Your task to perform on an android device: change notification settings in the gmail app Image 0: 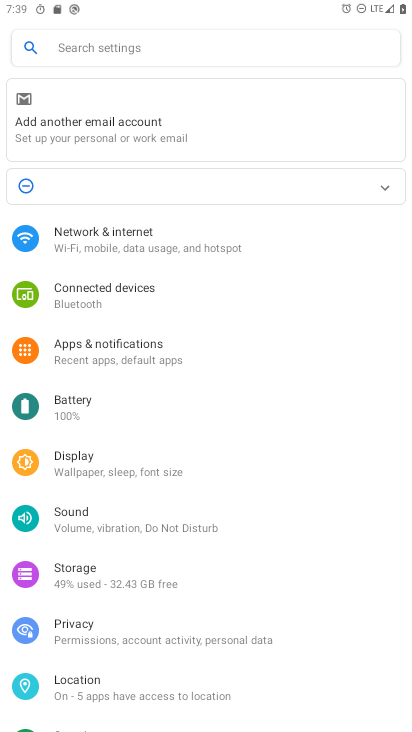
Step 0: press home button
Your task to perform on an android device: change notification settings in the gmail app Image 1: 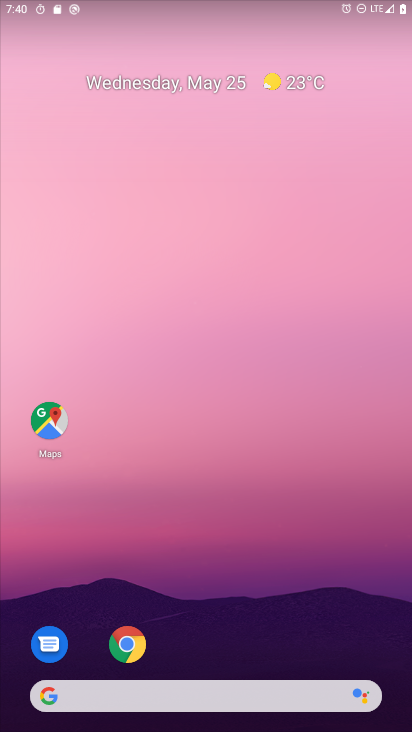
Step 1: drag from (301, 627) to (220, 0)
Your task to perform on an android device: change notification settings in the gmail app Image 2: 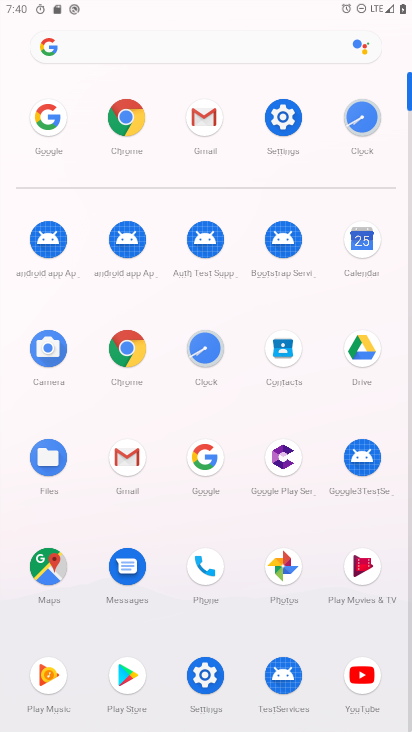
Step 2: click (134, 466)
Your task to perform on an android device: change notification settings in the gmail app Image 3: 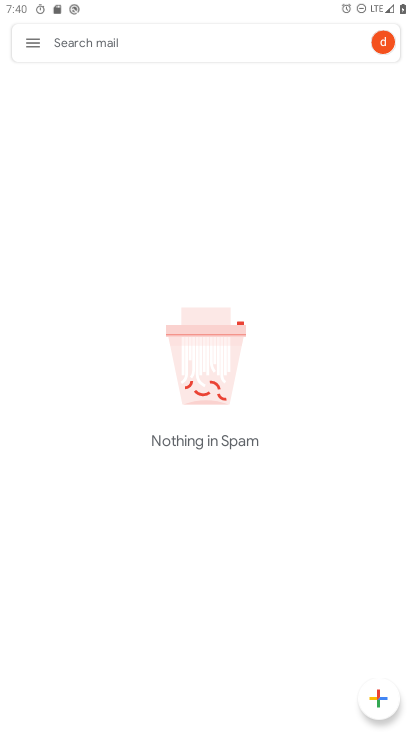
Step 3: click (28, 41)
Your task to perform on an android device: change notification settings in the gmail app Image 4: 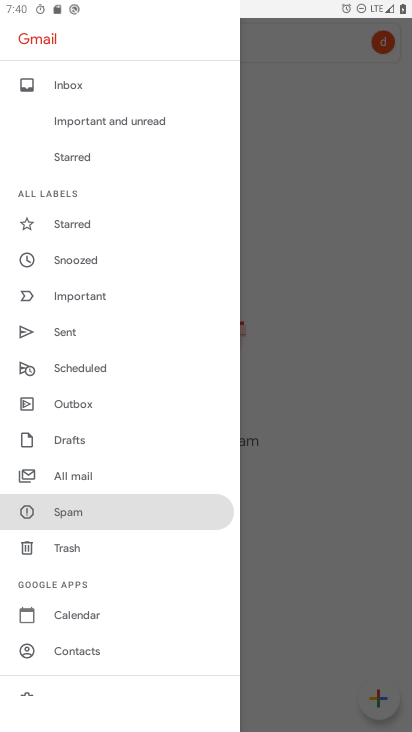
Step 4: drag from (66, 636) to (107, 86)
Your task to perform on an android device: change notification settings in the gmail app Image 5: 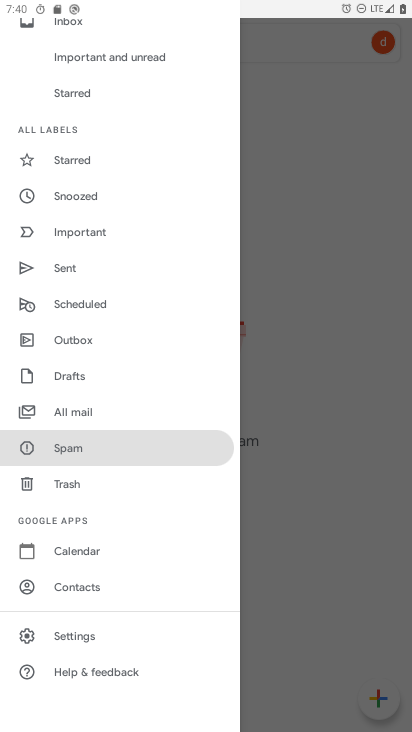
Step 5: click (95, 623)
Your task to perform on an android device: change notification settings in the gmail app Image 6: 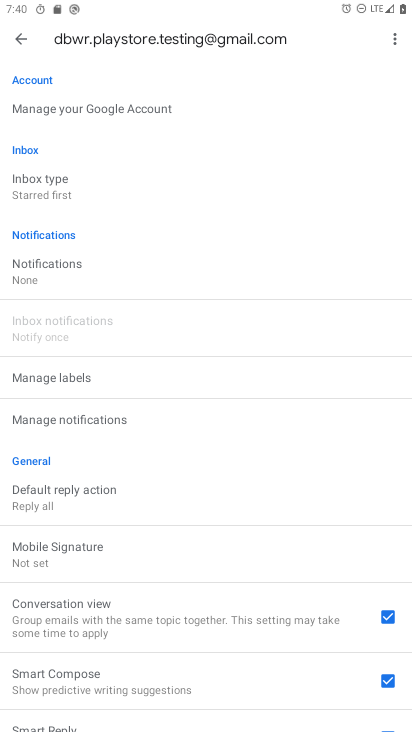
Step 6: click (96, 256)
Your task to perform on an android device: change notification settings in the gmail app Image 7: 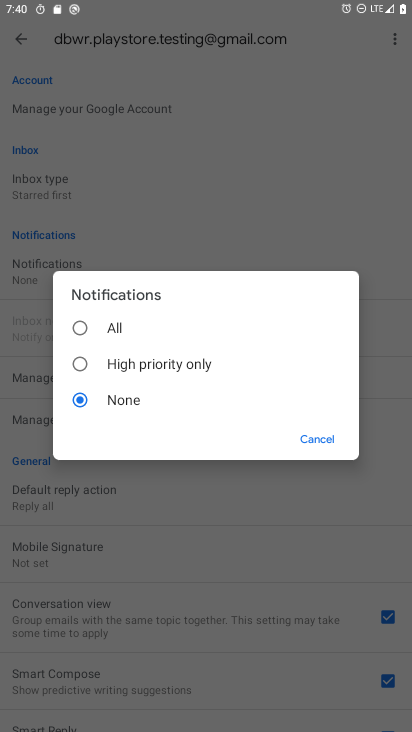
Step 7: click (83, 321)
Your task to perform on an android device: change notification settings in the gmail app Image 8: 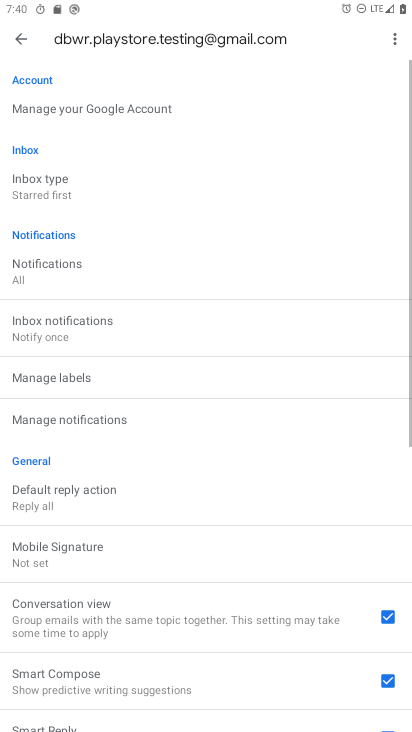
Step 8: task complete